Your task to perform on an android device: find photos in the google photos app Image 0: 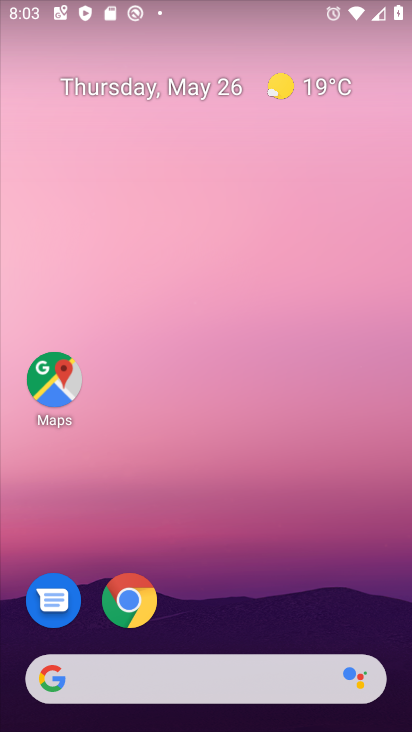
Step 0: press home button
Your task to perform on an android device: find photos in the google photos app Image 1: 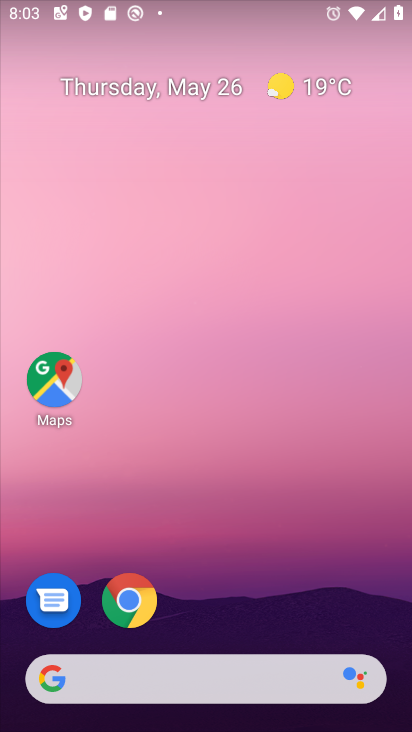
Step 1: drag from (316, 619) to (321, 136)
Your task to perform on an android device: find photos in the google photos app Image 2: 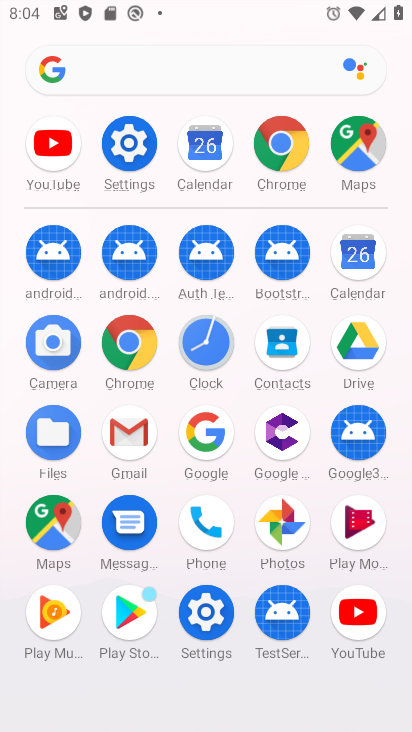
Step 2: click (286, 537)
Your task to perform on an android device: find photos in the google photos app Image 3: 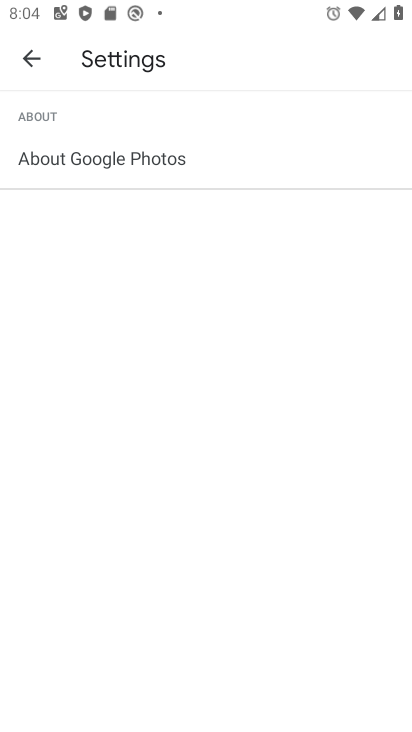
Step 3: click (29, 48)
Your task to perform on an android device: find photos in the google photos app Image 4: 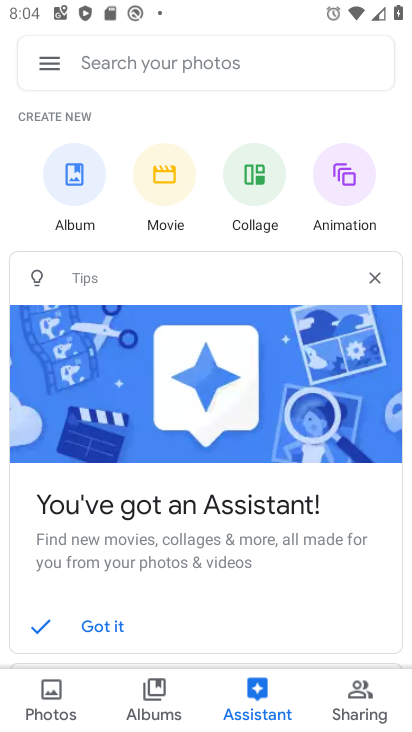
Step 4: click (47, 705)
Your task to perform on an android device: find photos in the google photos app Image 5: 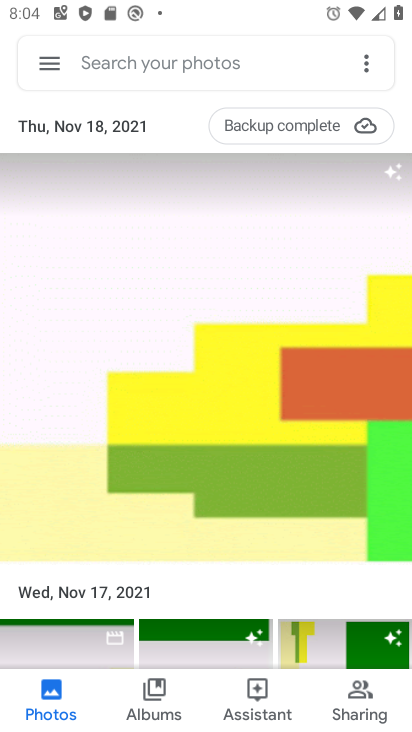
Step 5: task complete